Your task to perform on an android device: show emergency info Image 0: 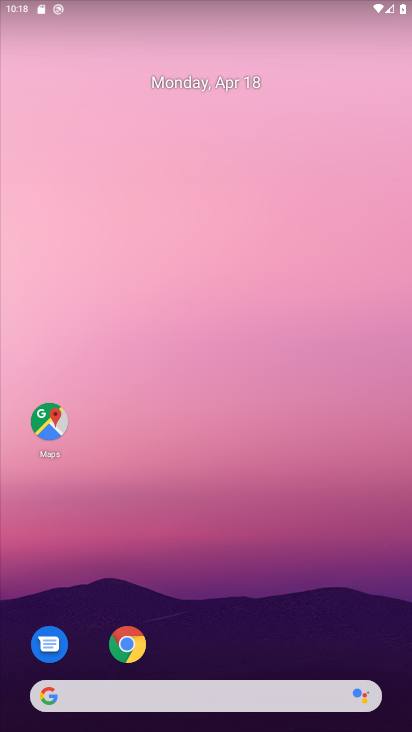
Step 0: drag from (300, 624) to (282, 158)
Your task to perform on an android device: show emergency info Image 1: 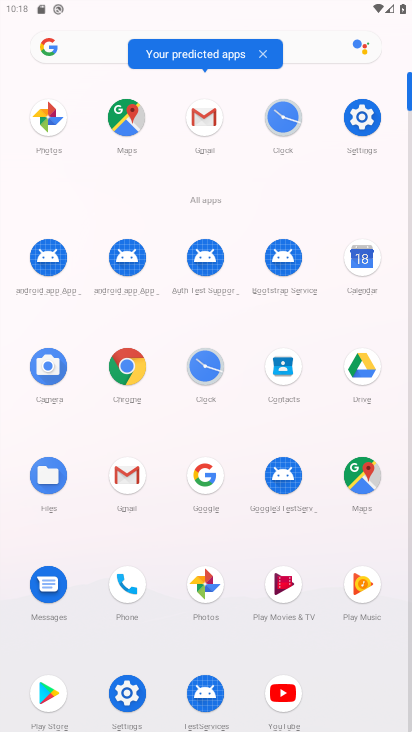
Step 1: click (359, 136)
Your task to perform on an android device: show emergency info Image 2: 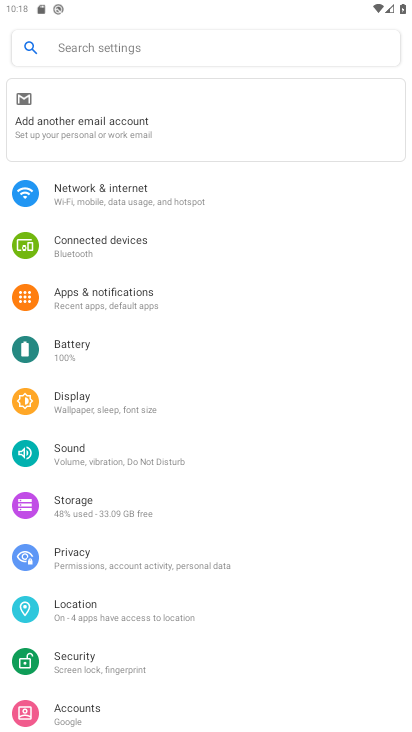
Step 2: drag from (280, 703) to (253, 192)
Your task to perform on an android device: show emergency info Image 3: 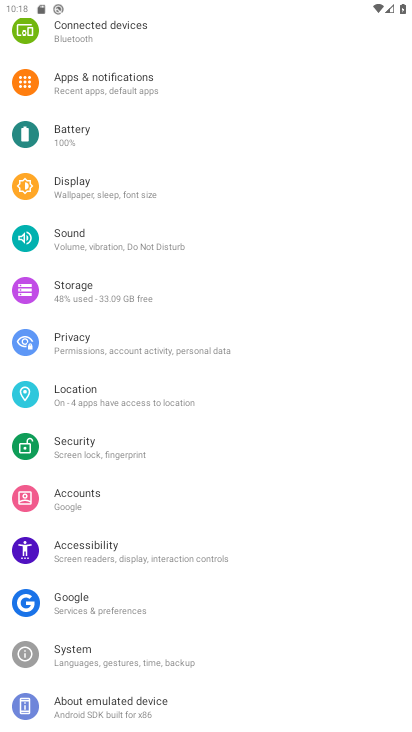
Step 3: click (226, 700)
Your task to perform on an android device: show emergency info Image 4: 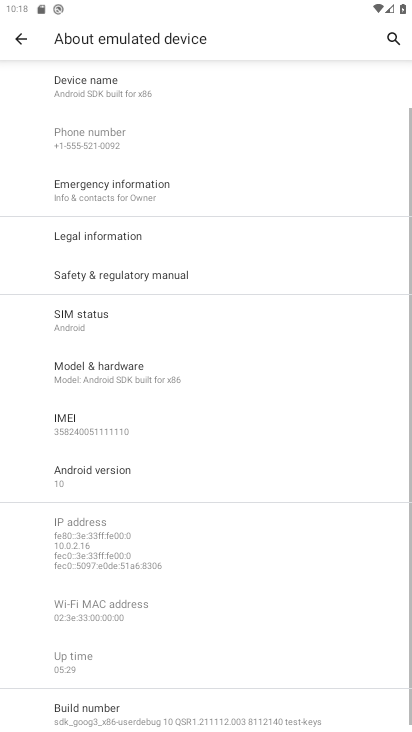
Step 4: click (227, 192)
Your task to perform on an android device: show emergency info Image 5: 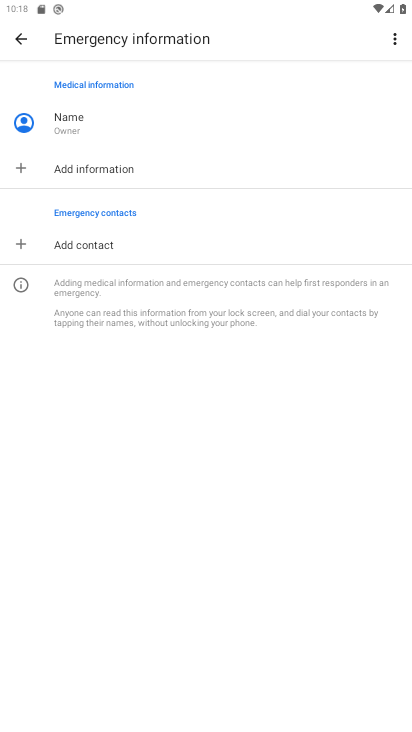
Step 5: task complete